Your task to perform on an android device: toggle pop-ups in chrome Image 0: 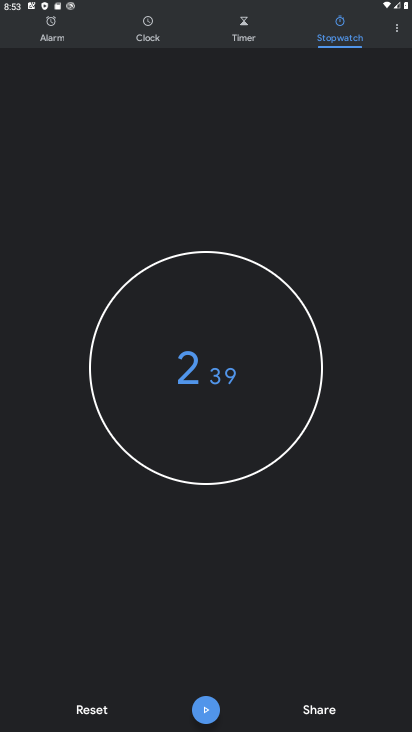
Step 0: press home button
Your task to perform on an android device: toggle pop-ups in chrome Image 1: 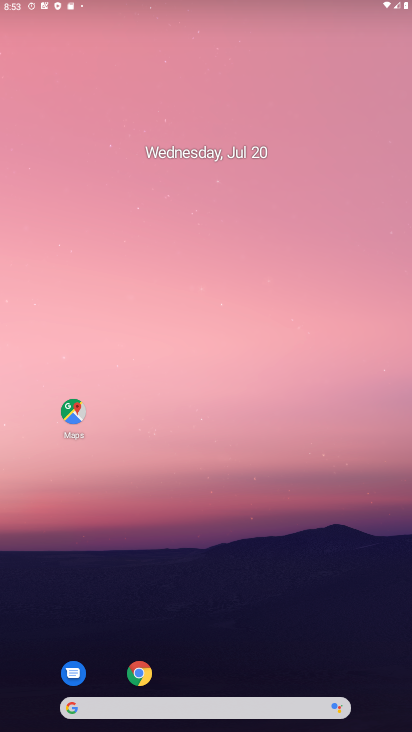
Step 1: drag from (355, 677) to (172, 88)
Your task to perform on an android device: toggle pop-ups in chrome Image 2: 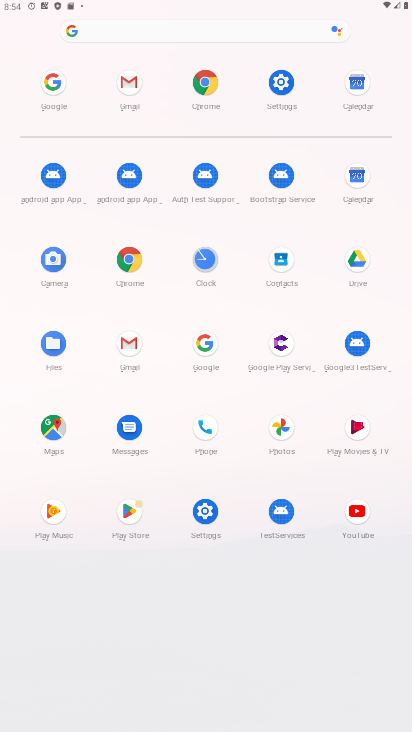
Step 2: click (122, 278)
Your task to perform on an android device: toggle pop-ups in chrome Image 3: 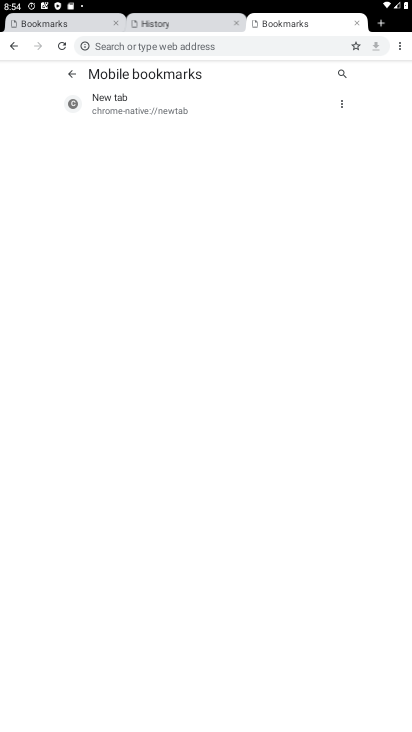
Step 3: click (403, 41)
Your task to perform on an android device: toggle pop-ups in chrome Image 4: 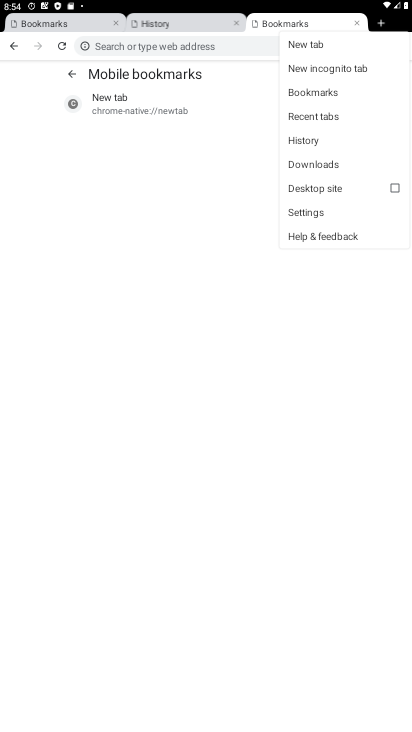
Step 4: click (309, 212)
Your task to perform on an android device: toggle pop-ups in chrome Image 5: 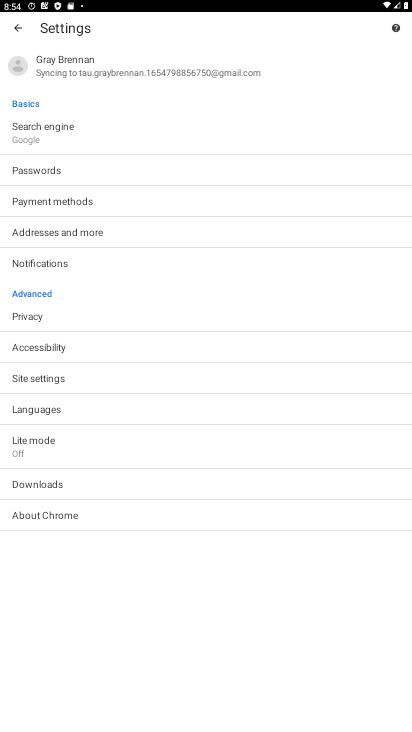
Step 5: click (50, 380)
Your task to perform on an android device: toggle pop-ups in chrome Image 6: 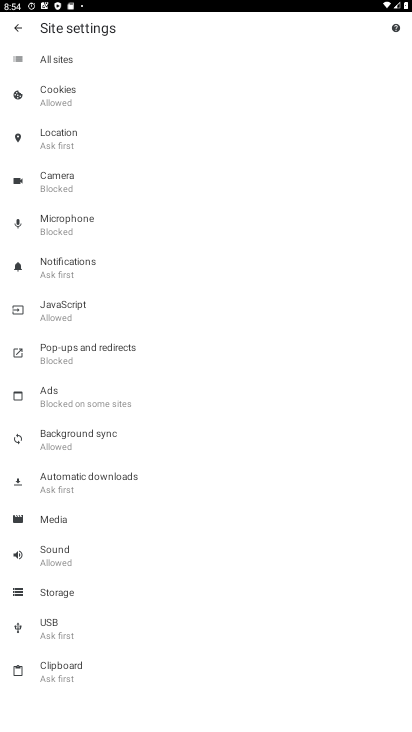
Step 6: click (79, 349)
Your task to perform on an android device: toggle pop-ups in chrome Image 7: 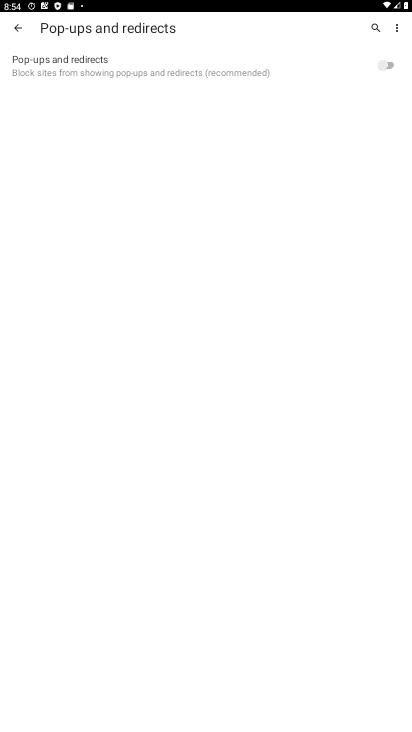
Step 7: click (386, 64)
Your task to perform on an android device: toggle pop-ups in chrome Image 8: 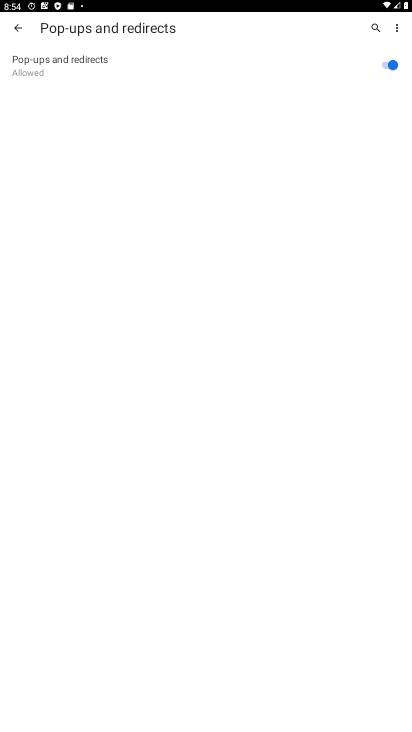
Step 8: task complete